Your task to perform on an android device: Go to CNN.com Image 0: 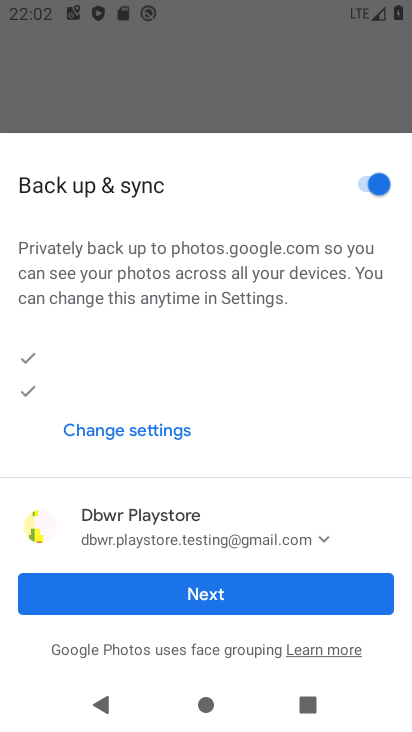
Step 0: drag from (298, 536) to (254, 162)
Your task to perform on an android device: Go to CNN.com Image 1: 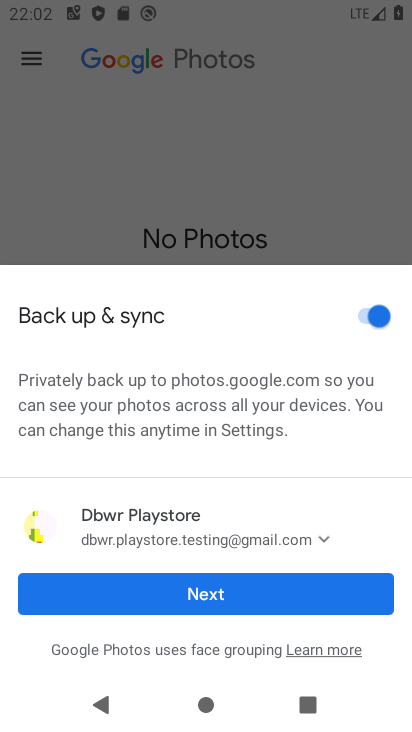
Step 1: press home button
Your task to perform on an android device: Go to CNN.com Image 2: 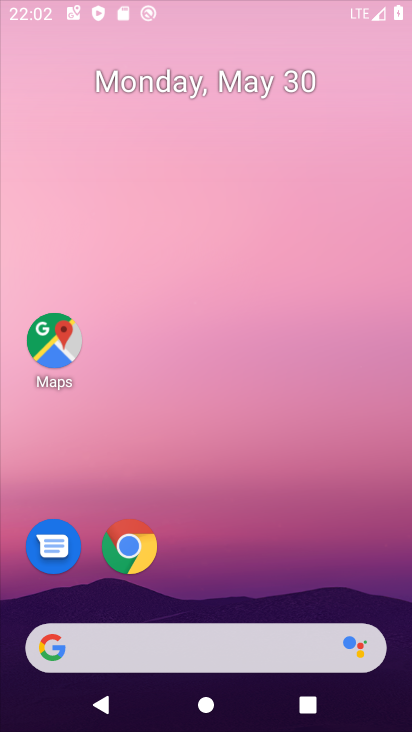
Step 2: drag from (343, 504) to (296, 138)
Your task to perform on an android device: Go to CNN.com Image 3: 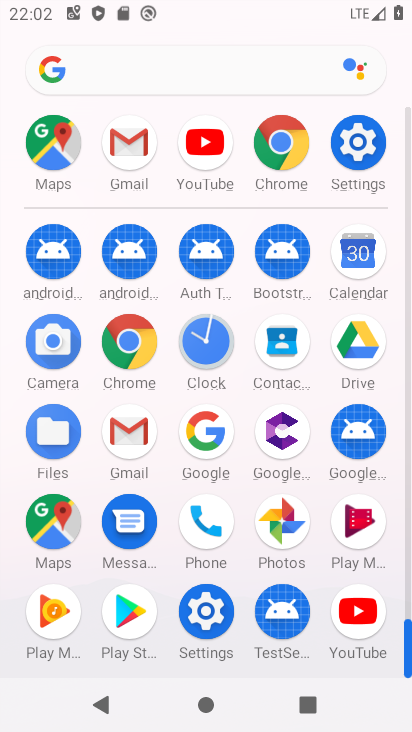
Step 3: click (297, 148)
Your task to perform on an android device: Go to CNN.com Image 4: 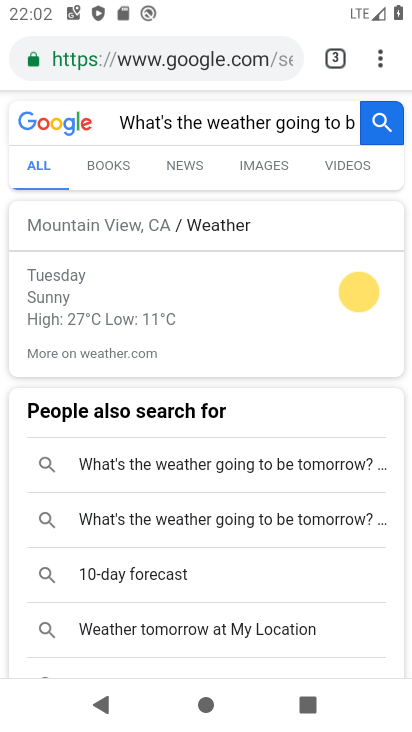
Step 4: click (215, 62)
Your task to perform on an android device: Go to CNN.com Image 5: 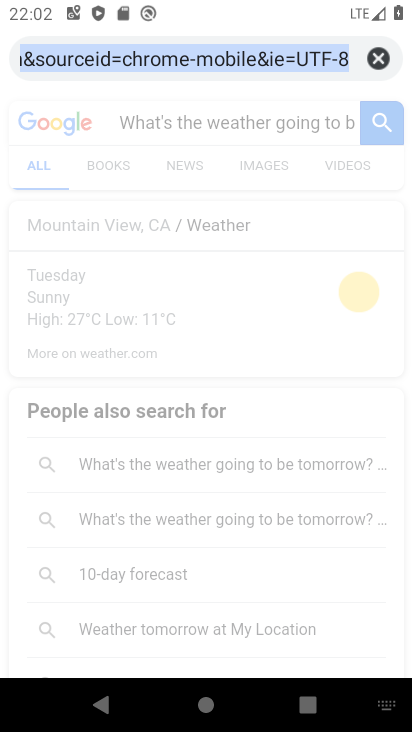
Step 5: click (383, 56)
Your task to perform on an android device: Go to CNN.com Image 6: 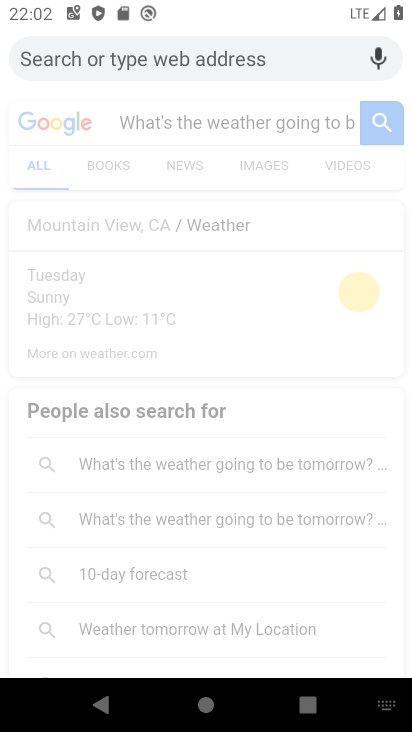
Step 6: type "cnn.com"
Your task to perform on an android device: Go to CNN.com Image 7: 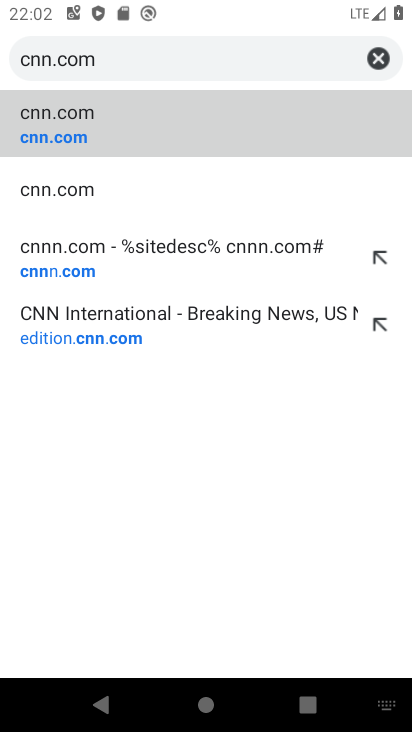
Step 7: click (94, 123)
Your task to perform on an android device: Go to CNN.com Image 8: 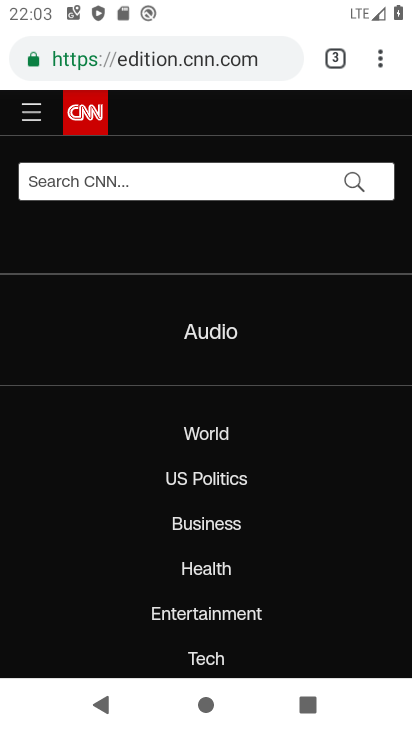
Step 8: task complete